Your task to perform on an android device: turn on airplane mode Image 0: 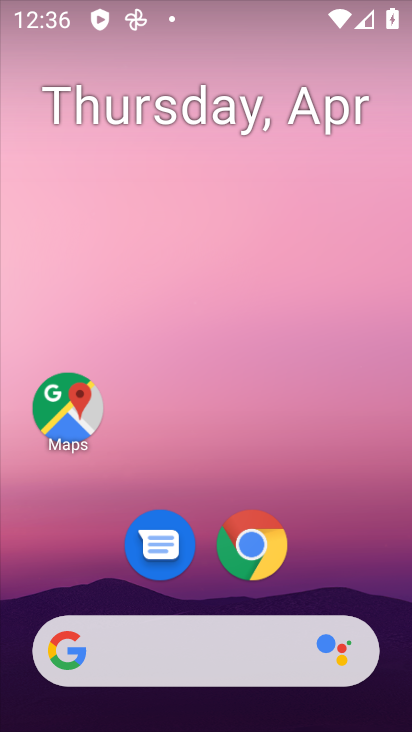
Step 0: drag from (279, 3) to (301, 577)
Your task to perform on an android device: turn on airplane mode Image 1: 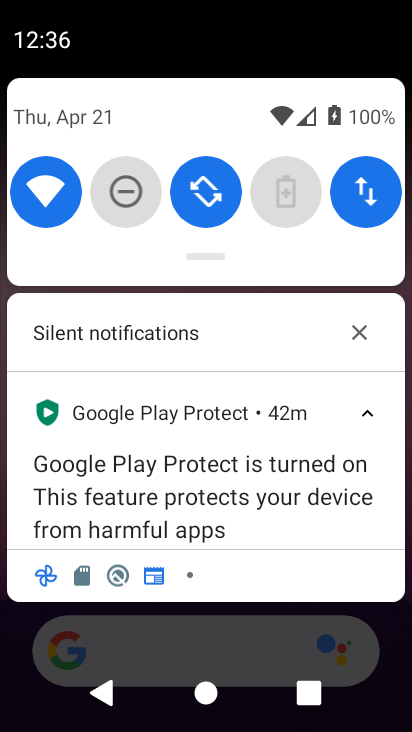
Step 1: drag from (315, 241) to (291, 643)
Your task to perform on an android device: turn on airplane mode Image 2: 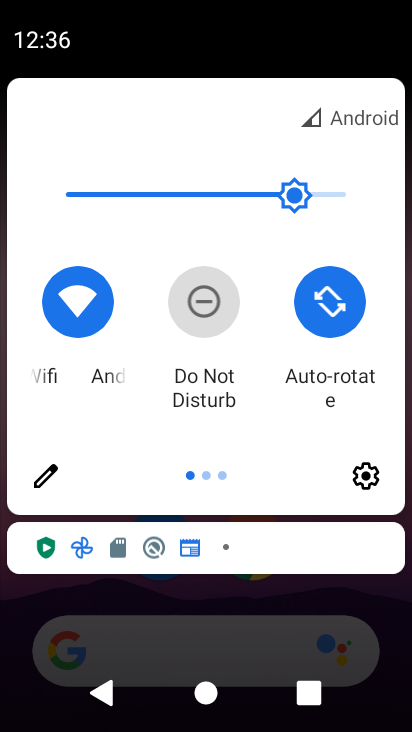
Step 2: drag from (363, 363) to (104, 381)
Your task to perform on an android device: turn on airplane mode Image 3: 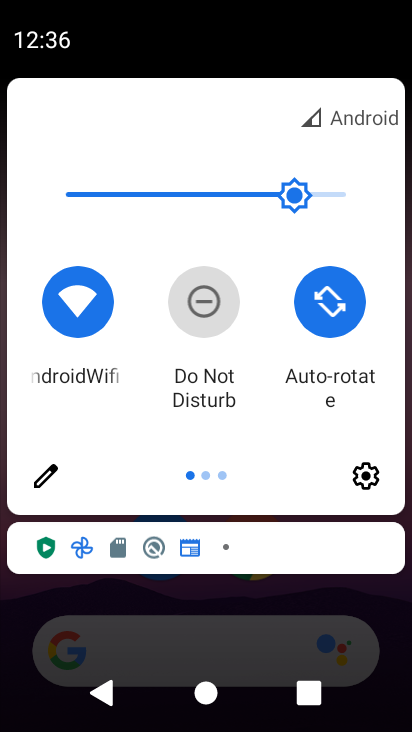
Step 3: drag from (347, 346) to (76, 350)
Your task to perform on an android device: turn on airplane mode Image 4: 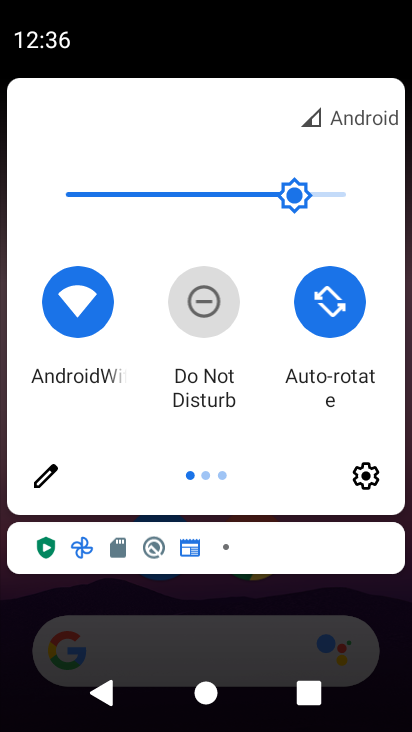
Step 4: drag from (372, 356) to (70, 405)
Your task to perform on an android device: turn on airplane mode Image 5: 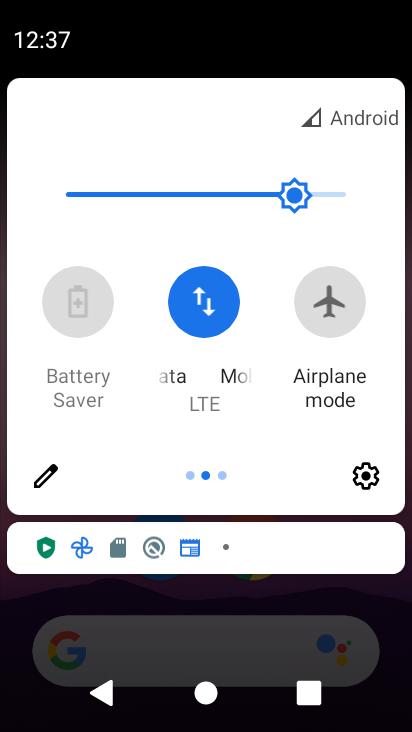
Step 5: click (329, 296)
Your task to perform on an android device: turn on airplane mode Image 6: 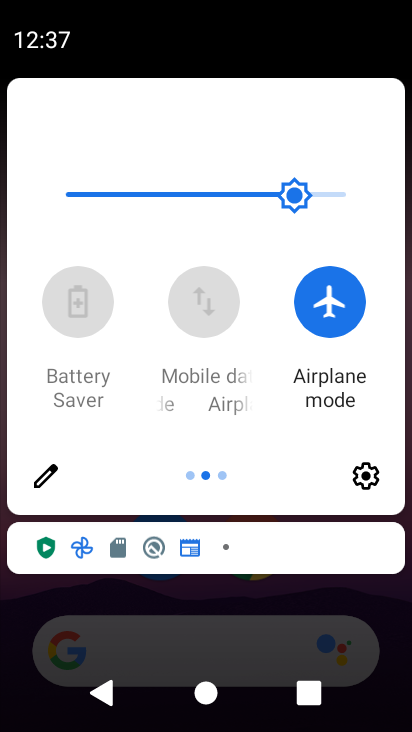
Step 6: task complete